Your task to perform on an android device: Go to privacy settings Image 0: 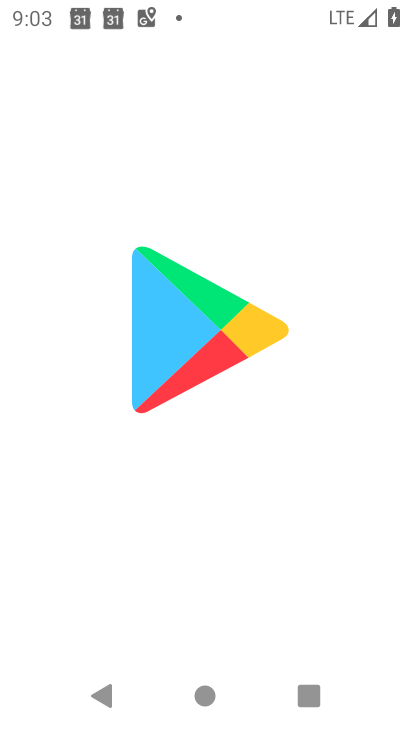
Step 0: drag from (209, 679) to (225, 292)
Your task to perform on an android device: Go to privacy settings Image 1: 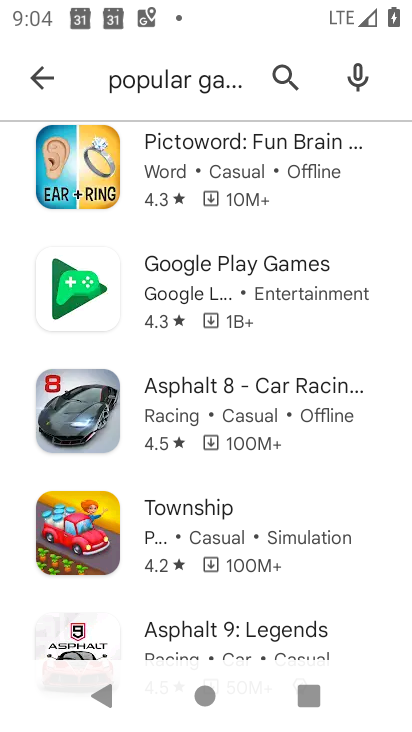
Step 1: press home button
Your task to perform on an android device: Go to privacy settings Image 2: 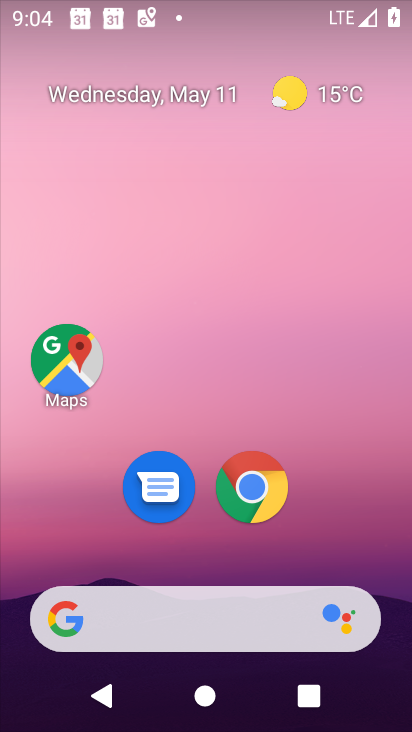
Step 2: drag from (272, 636) to (300, 219)
Your task to perform on an android device: Go to privacy settings Image 3: 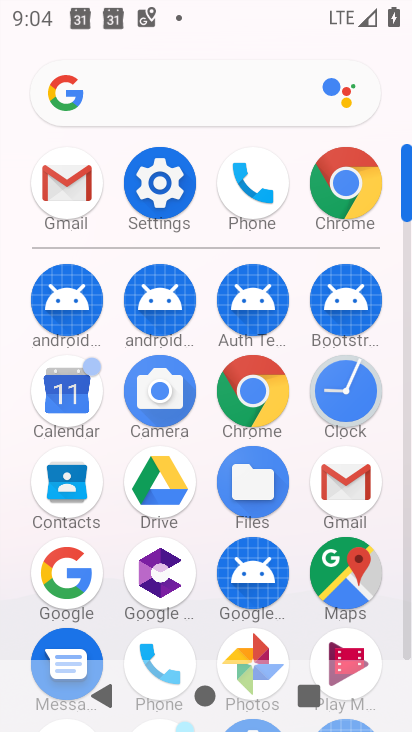
Step 3: click (172, 195)
Your task to perform on an android device: Go to privacy settings Image 4: 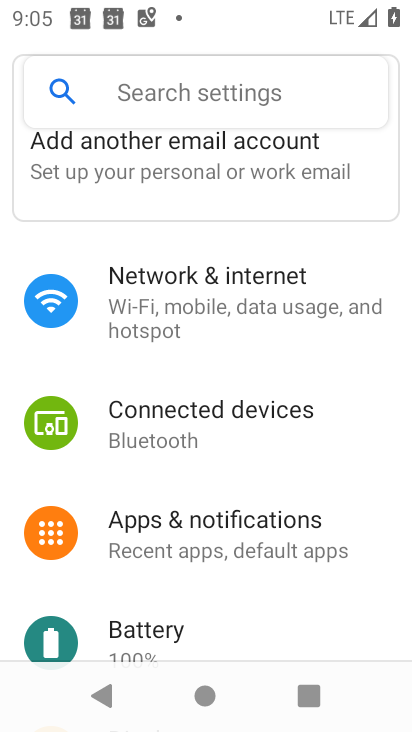
Step 4: drag from (235, 442) to (247, 231)
Your task to perform on an android device: Go to privacy settings Image 5: 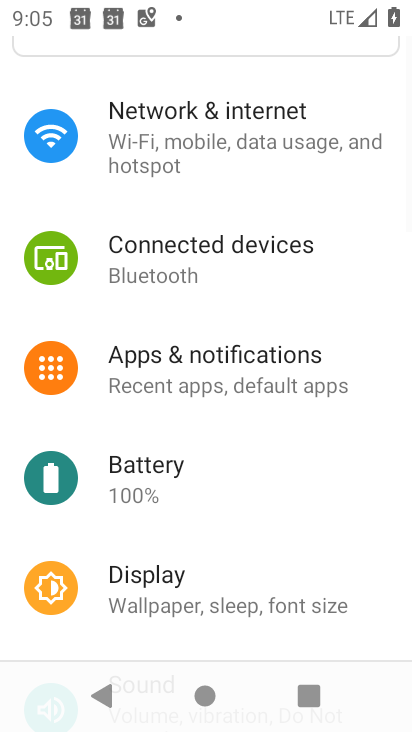
Step 5: drag from (157, 498) to (180, 304)
Your task to perform on an android device: Go to privacy settings Image 6: 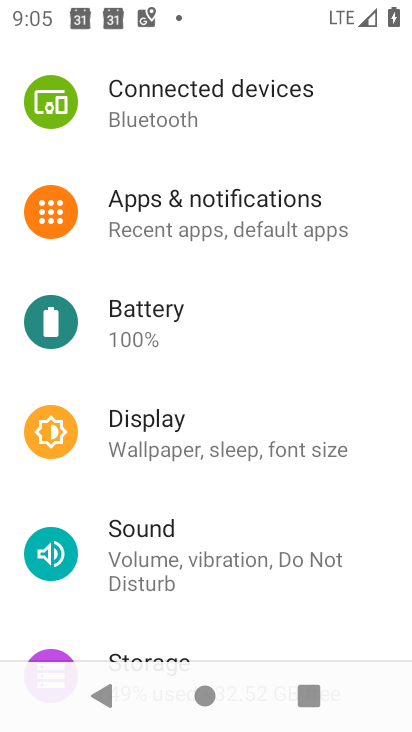
Step 6: drag from (228, 512) to (200, 299)
Your task to perform on an android device: Go to privacy settings Image 7: 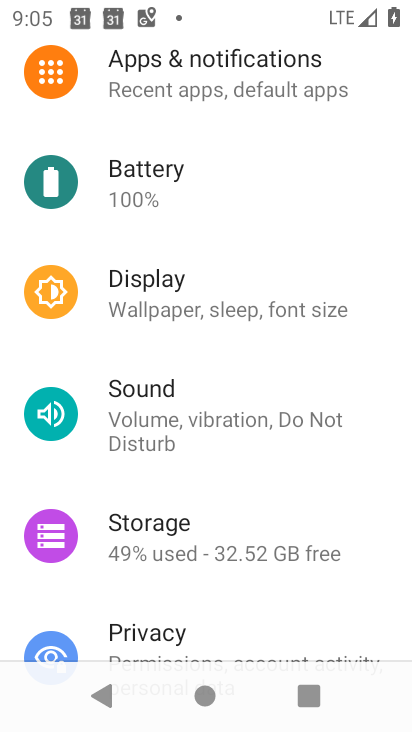
Step 7: click (194, 624)
Your task to perform on an android device: Go to privacy settings Image 8: 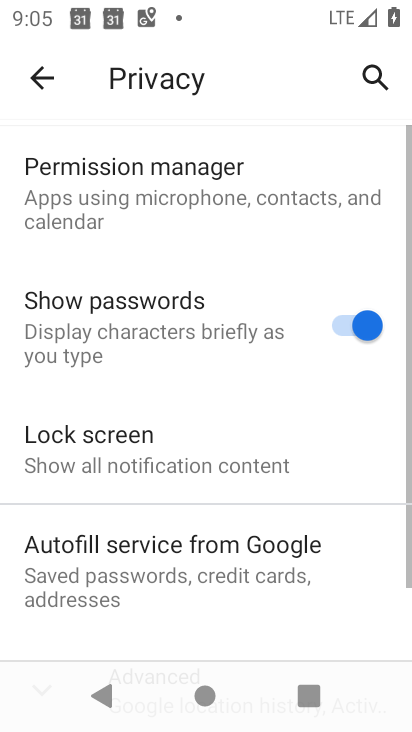
Step 8: task complete